Your task to perform on an android device: turn off location Image 0: 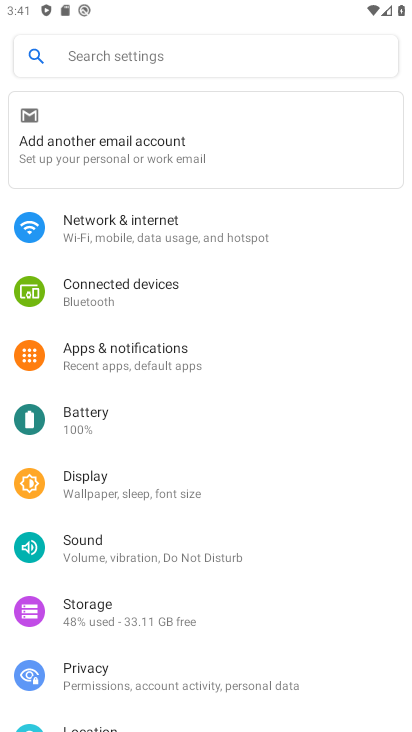
Step 0: drag from (90, 671) to (71, 342)
Your task to perform on an android device: turn off location Image 1: 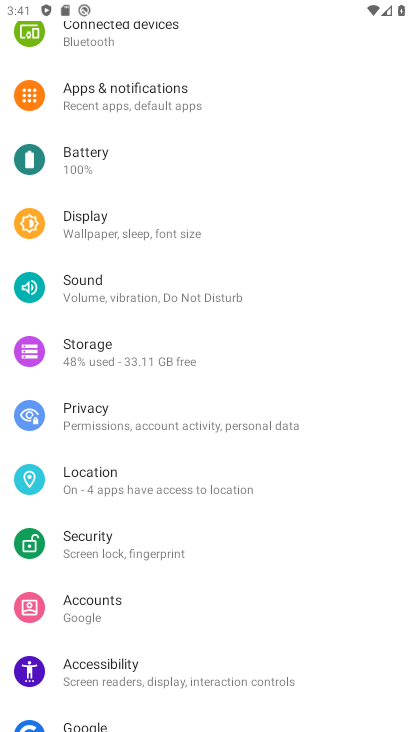
Step 1: click (129, 486)
Your task to perform on an android device: turn off location Image 2: 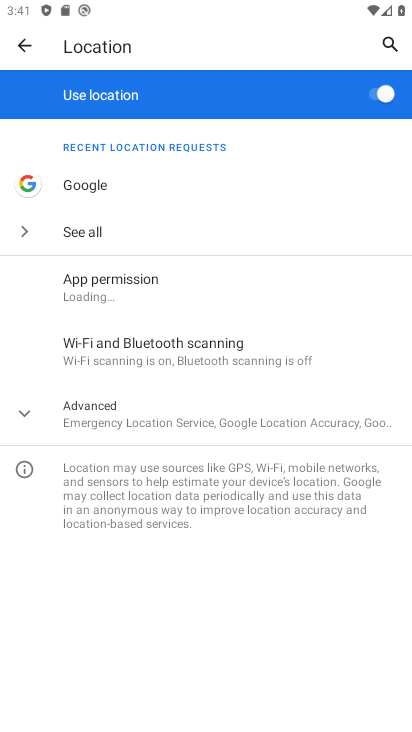
Step 2: click (395, 94)
Your task to perform on an android device: turn off location Image 3: 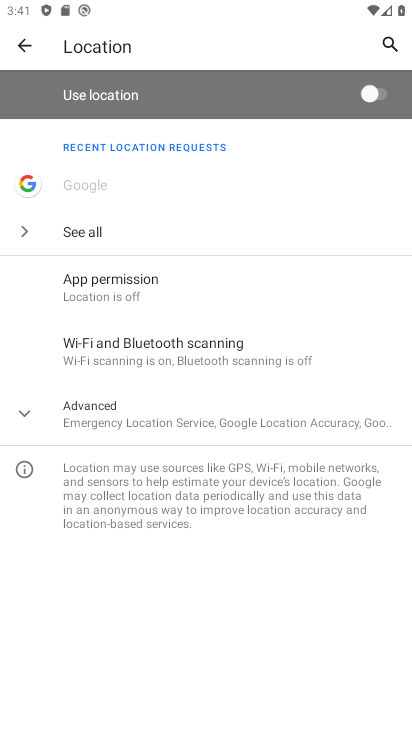
Step 3: task complete